Your task to perform on an android device: Open CNN.com Image 0: 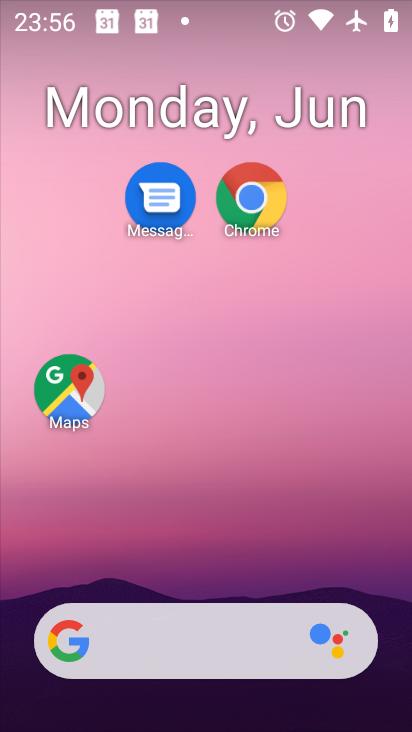
Step 0: click (266, 196)
Your task to perform on an android device: Open CNN.com Image 1: 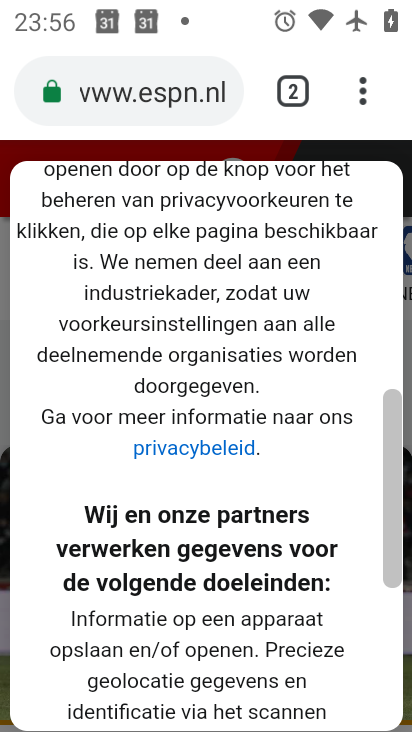
Step 1: click (281, 97)
Your task to perform on an android device: Open CNN.com Image 2: 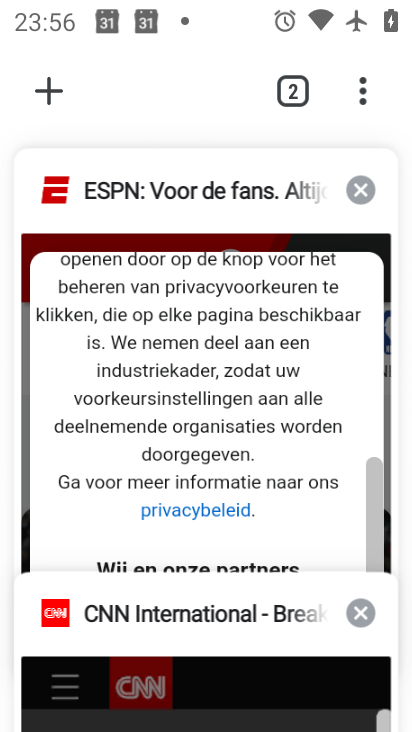
Step 2: click (155, 666)
Your task to perform on an android device: Open CNN.com Image 3: 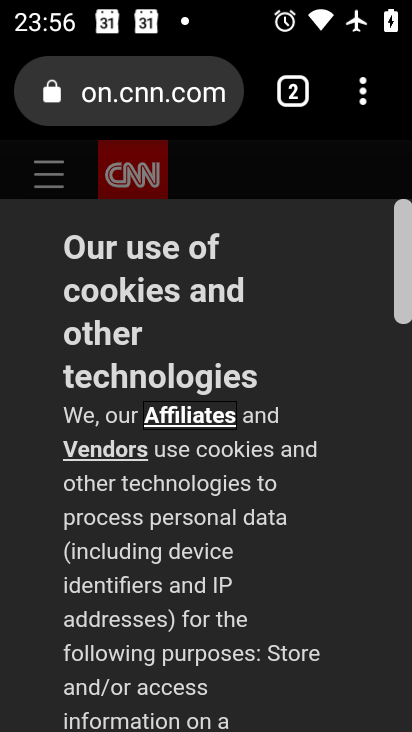
Step 3: task complete